Your task to perform on an android device: turn notification dots off Image 0: 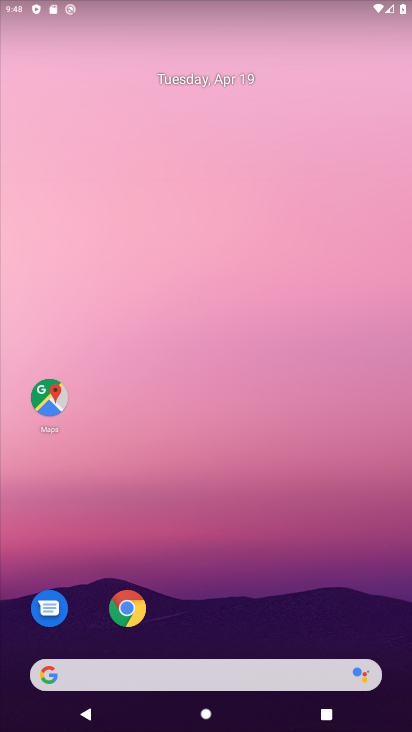
Step 0: drag from (363, 566) to (341, 97)
Your task to perform on an android device: turn notification dots off Image 1: 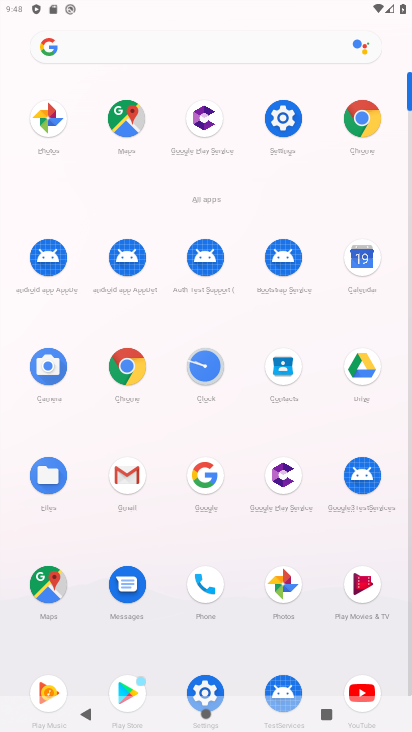
Step 1: click (289, 125)
Your task to perform on an android device: turn notification dots off Image 2: 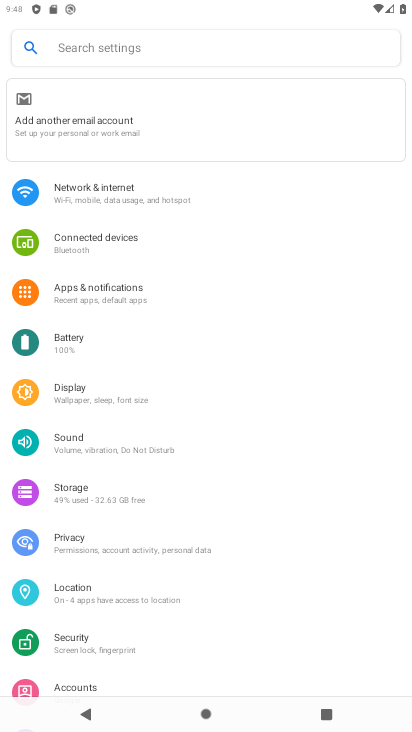
Step 2: click (93, 289)
Your task to perform on an android device: turn notification dots off Image 3: 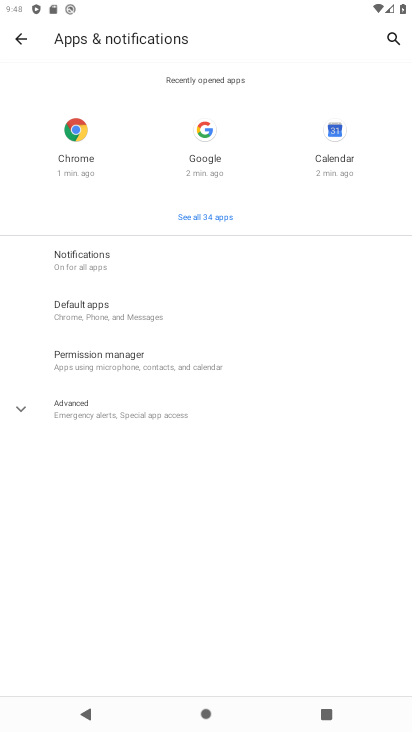
Step 3: click (68, 255)
Your task to perform on an android device: turn notification dots off Image 4: 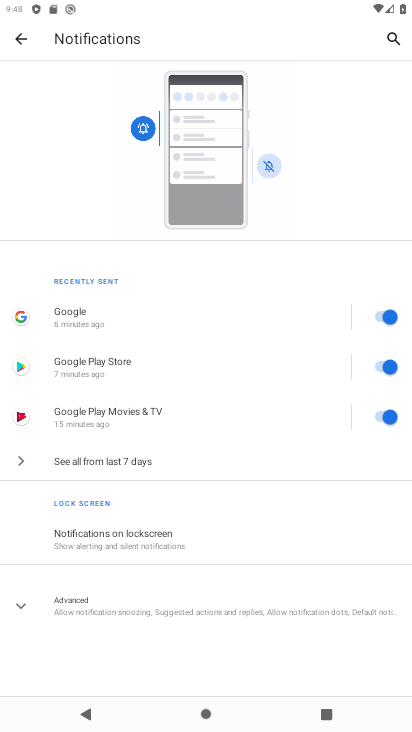
Step 4: drag from (239, 409) to (234, 313)
Your task to perform on an android device: turn notification dots off Image 5: 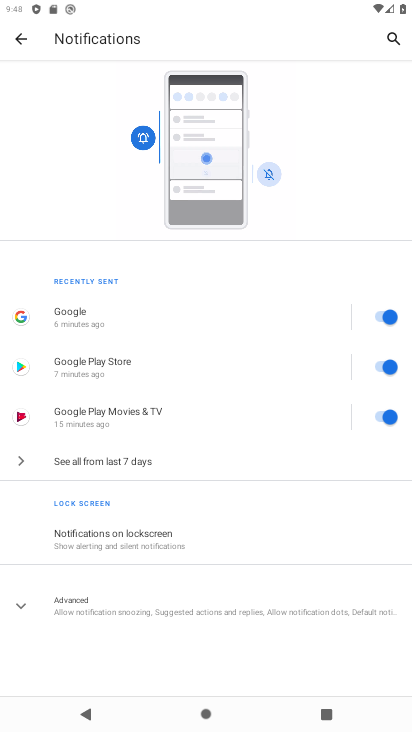
Step 5: click (58, 603)
Your task to perform on an android device: turn notification dots off Image 6: 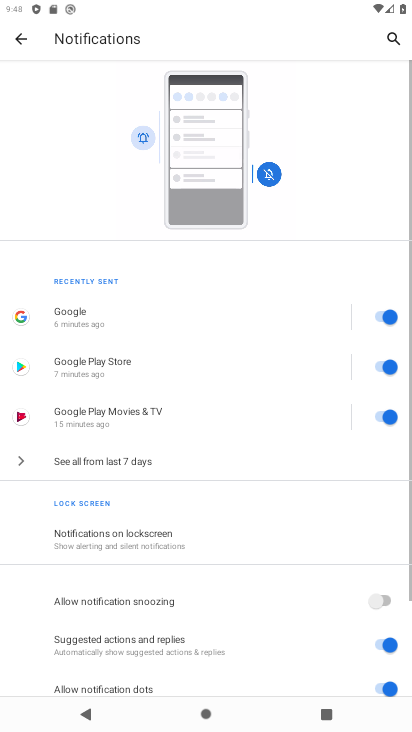
Step 6: drag from (272, 423) to (256, 262)
Your task to perform on an android device: turn notification dots off Image 7: 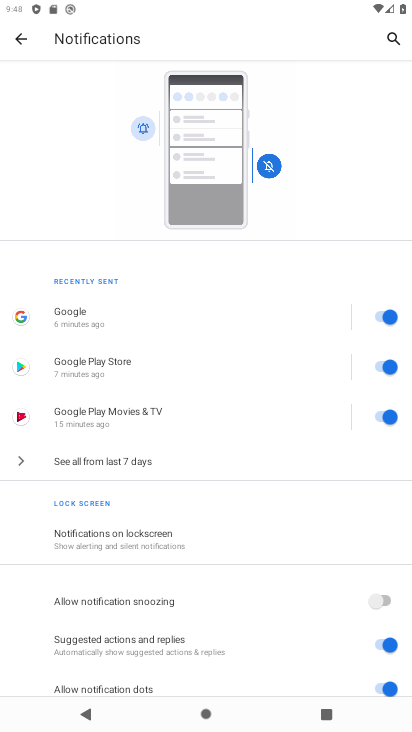
Step 7: click (378, 691)
Your task to perform on an android device: turn notification dots off Image 8: 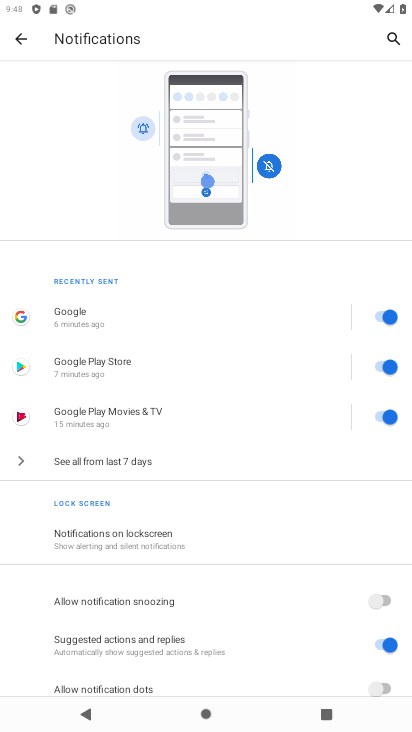
Step 8: task complete